Your task to perform on an android device: turn on the 24-hour format for clock Image 0: 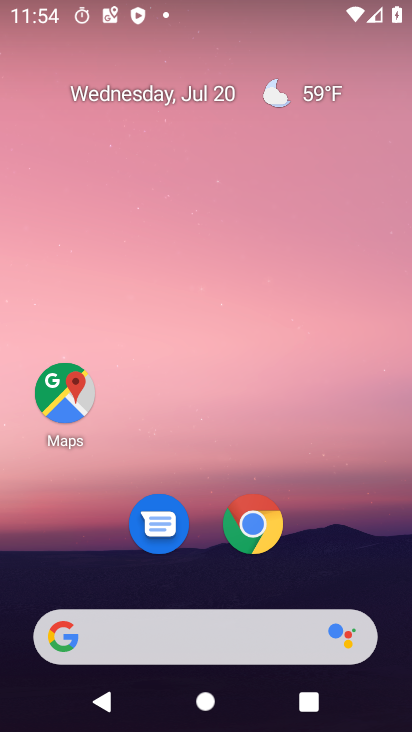
Step 0: drag from (201, 625) to (336, 53)
Your task to perform on an android device: turn on the 24-hour format for clock Image 1: 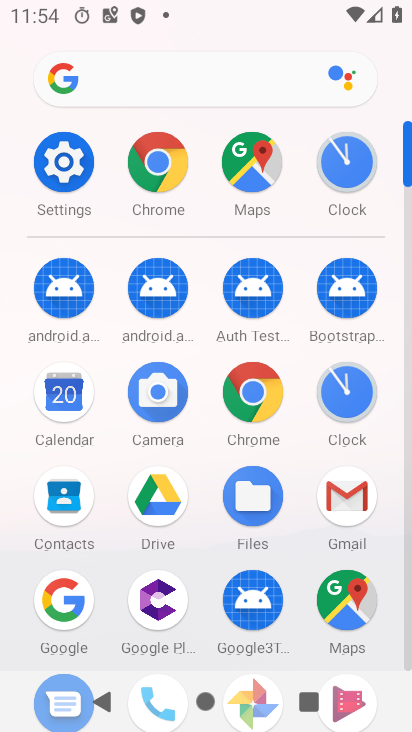
Step 1: click (340, 385)
Your task to perform on an android device: turn on the 24-hour format for clock Image 2: 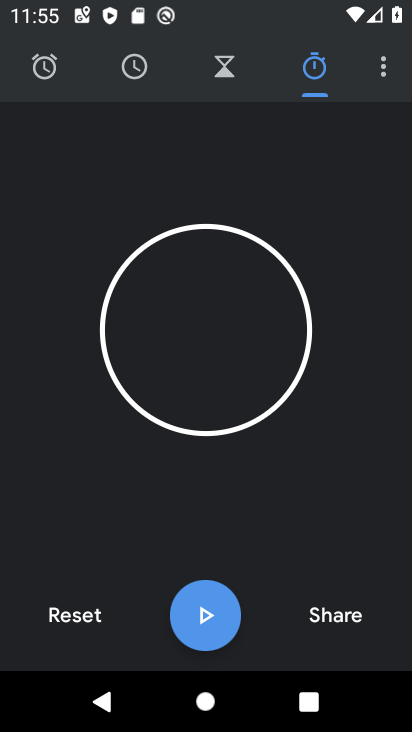
Step 2: click (377, 69)
Your task to perform on an android device: turn on the 24-hour format for clock Image 3: 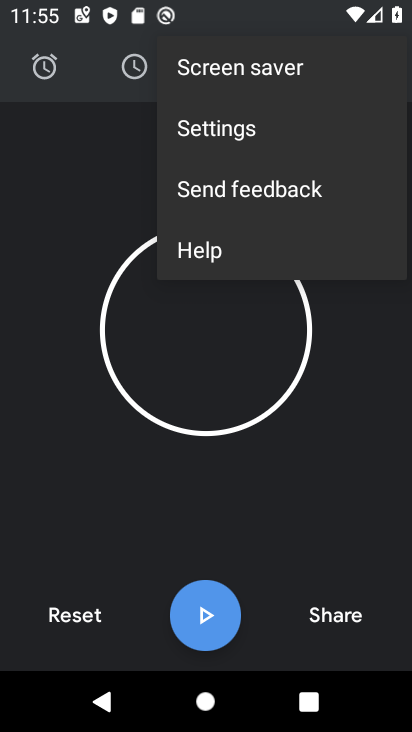
Step 3: click (201, 122)
Your task to perform on an android device: turn on the 24-hour format for clock Image 4: 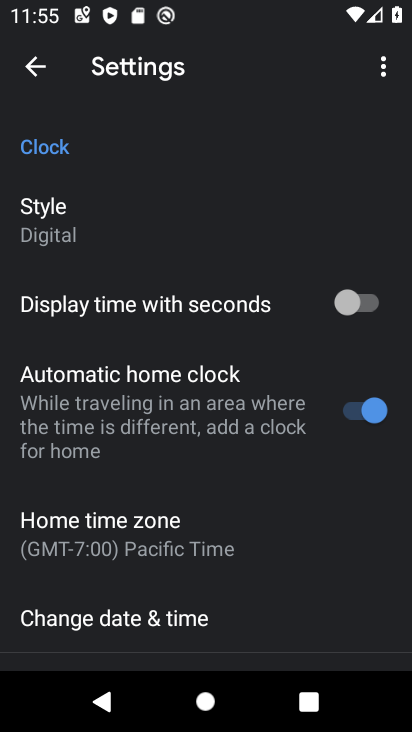
Step 4: click (122, 614)
Your task to perform on an android device: turn on the 24-hour format for clock Image 5: 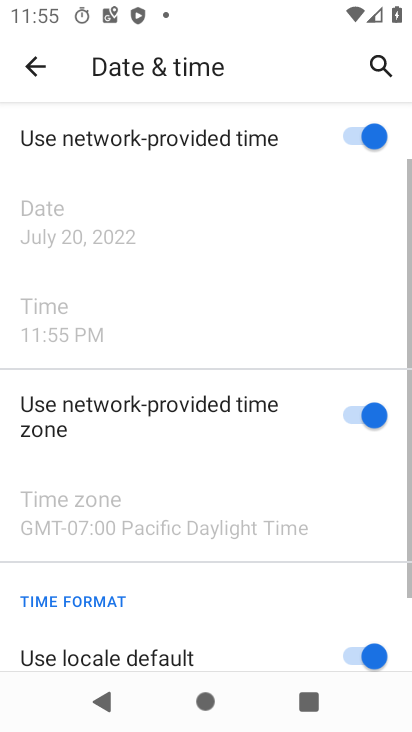
Step 5: drag from (245, 576) to (325, 70)
Your task to perform on an android device: turn on the 24-hour format for clock Image 6: 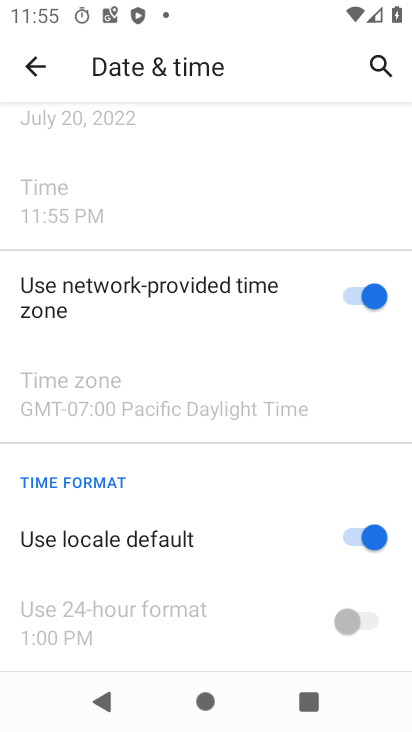
Step 6: click (352, 535)
Your task to perform on an android device: turn on the 24-hour format for clock Image 7: 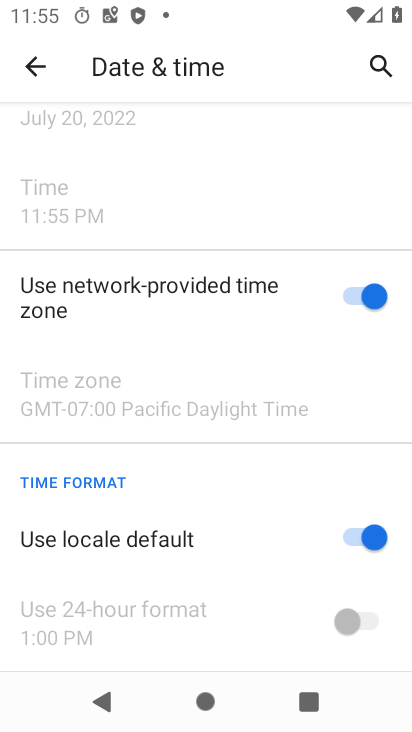
Step 7: click (364, 620)
Your task to perform on an android device: turn on the 24-hour format for clock Image 8: 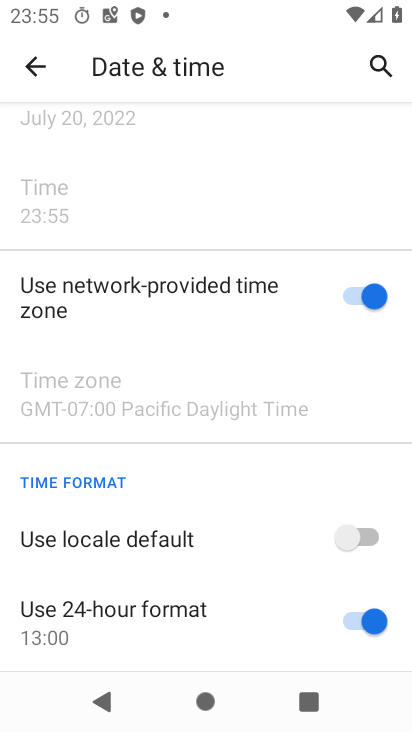
Step 8: task complete